Your task to perform on an android device: Open Reddit.com Image 0: 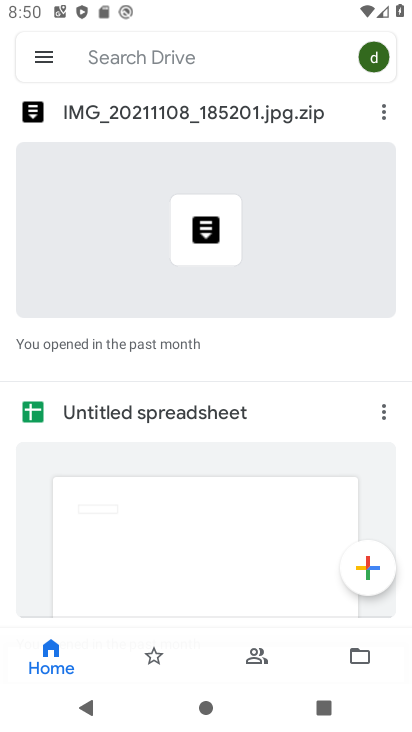
Step 0: press home button
Your task to perform on an android device: Open Reddit.com Image 1: 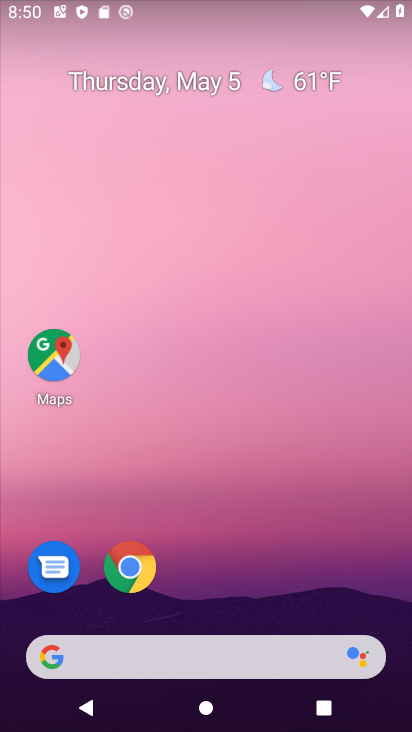
Step 1: click (176, 655)
Your task to perform on an android device: Open Reddit.com Image 2: 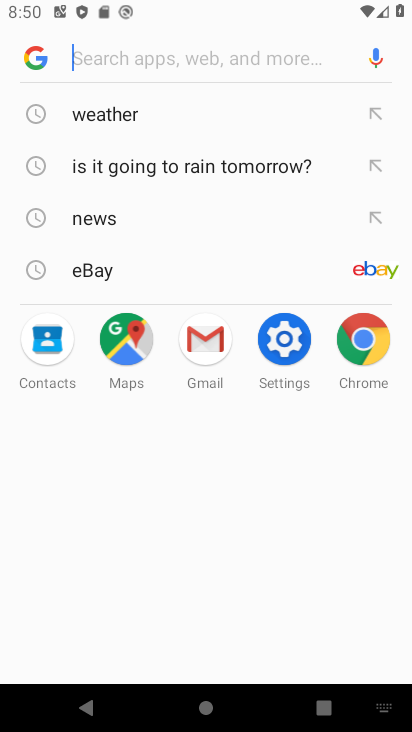
Step 2: type "Reddit.com"
Your task to perform on an android device: Open Reddit.com Image 3: 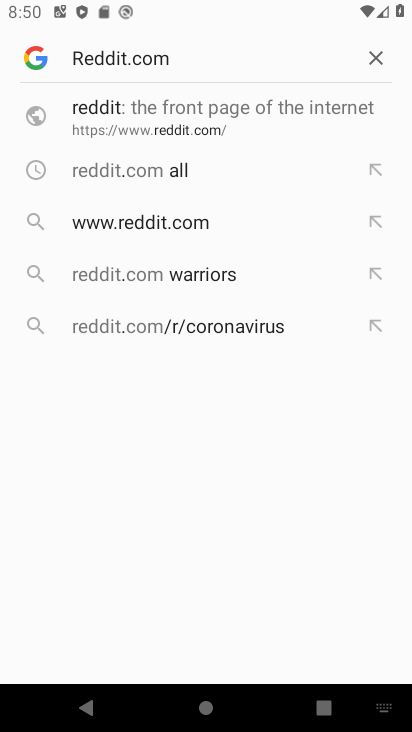
Step 3: click (142, 117)
Your task to perform on an android device: Open Reddit.com Image 4: 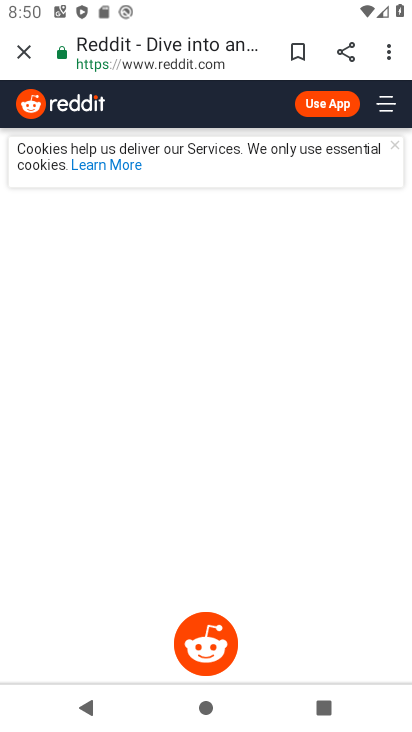
Step 4: task complete